Your task to perform on an android device: Add "apple airpods pro" to the cart on amazon.com, then select checkout. Image 0: 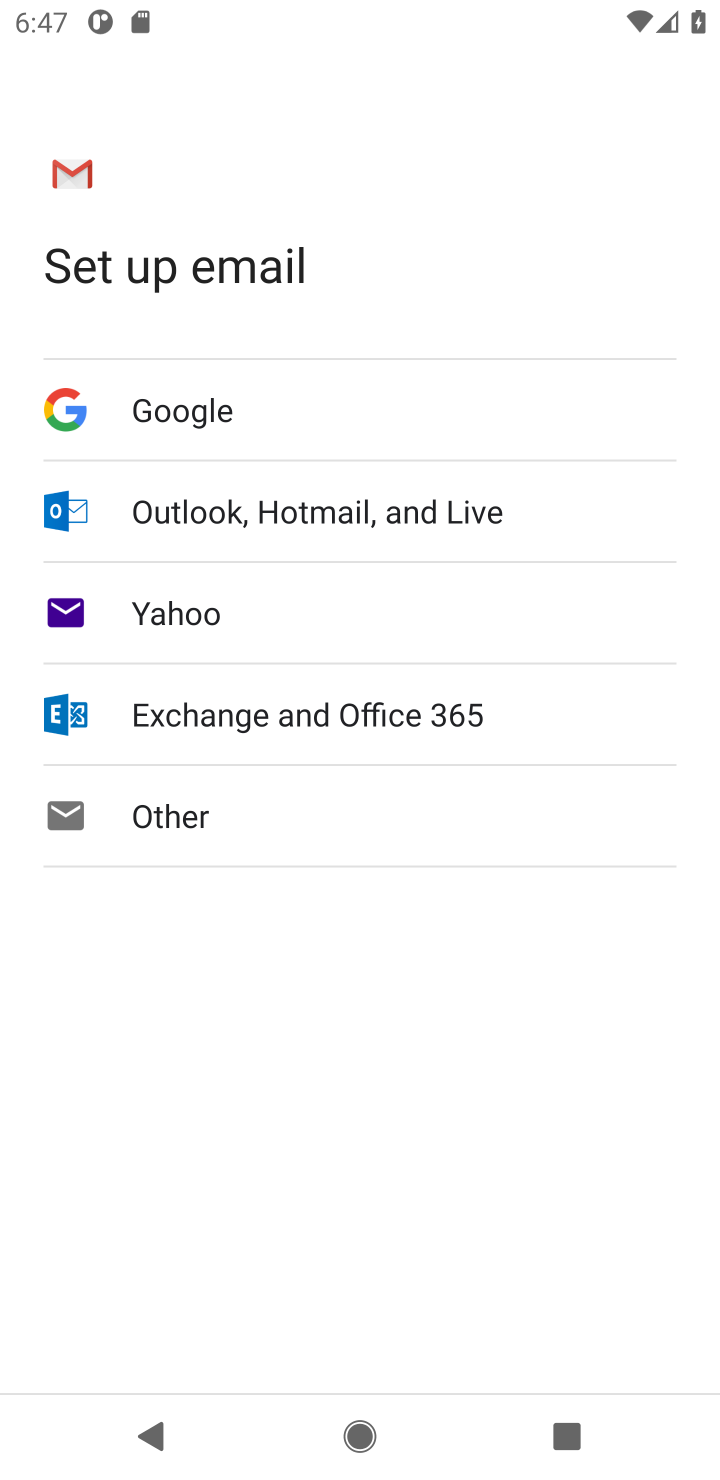
Step 0: press home button
Your task to perform on an android device: Add "apple airpods pro" to the cart on amazon.com, then select checkout. Image 1: 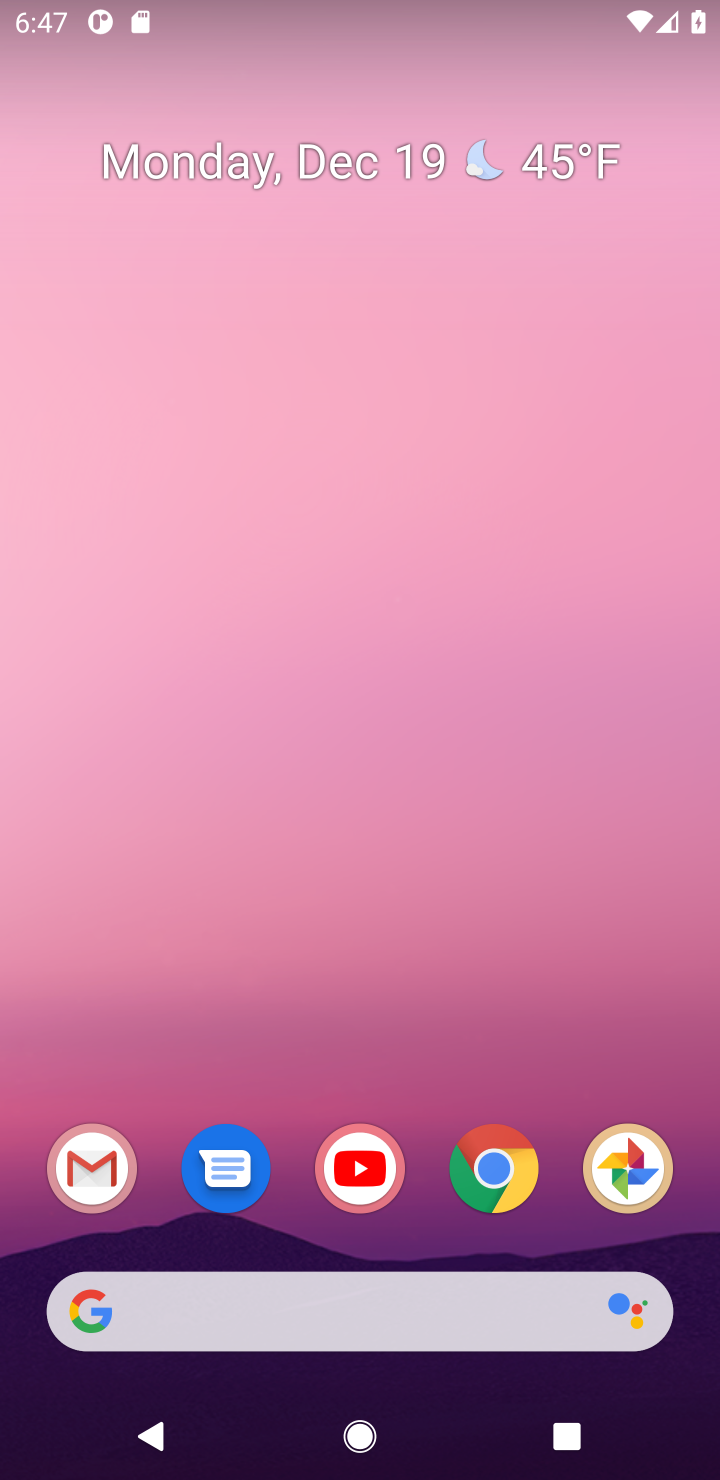
Step 1: click (496, 1183)
Your task to perform on an android device: Add "apple airpods pro" to the cart on amazon.com, then select checkout. Image 2: 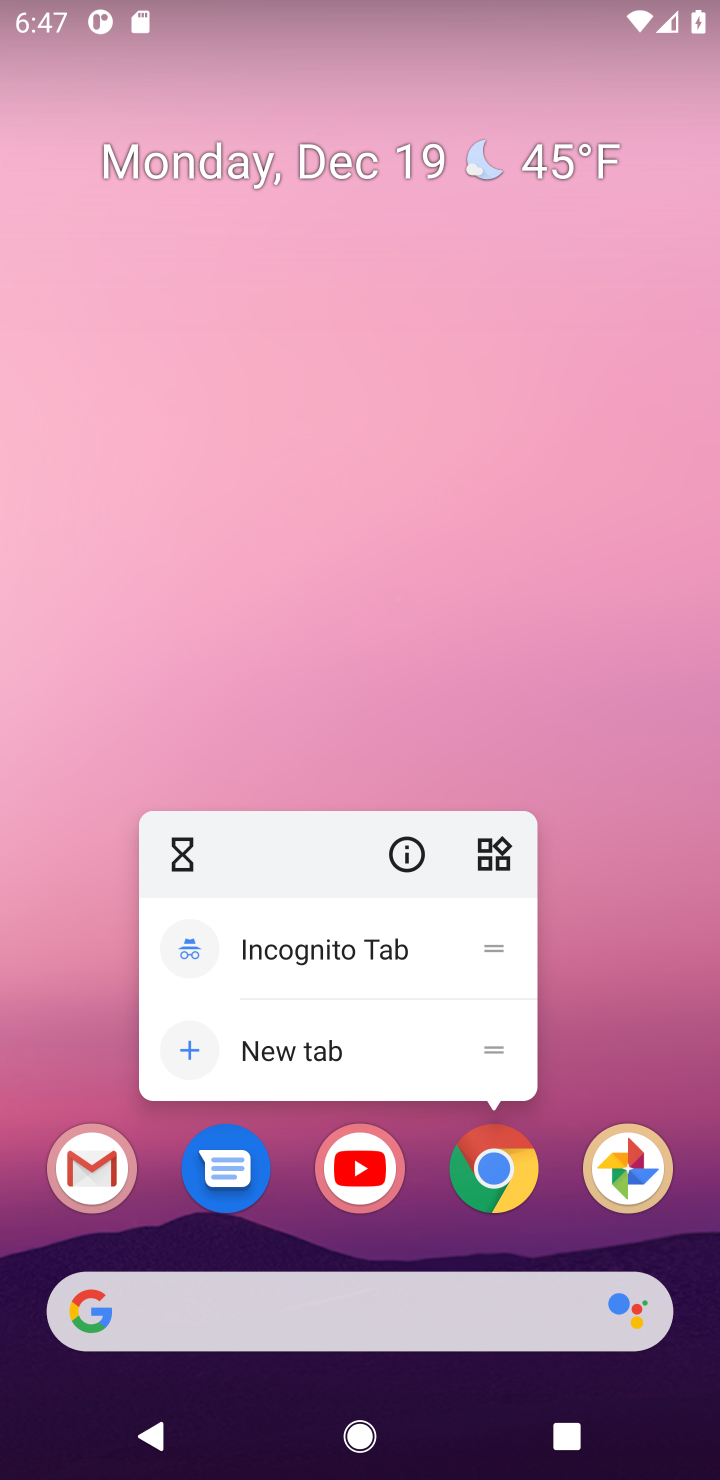
Step 2: click (496, 1183)
Your task to perform on an android device: Add "apple airpods pro" to the cart on amazon.com, then select checkout. Image 3: 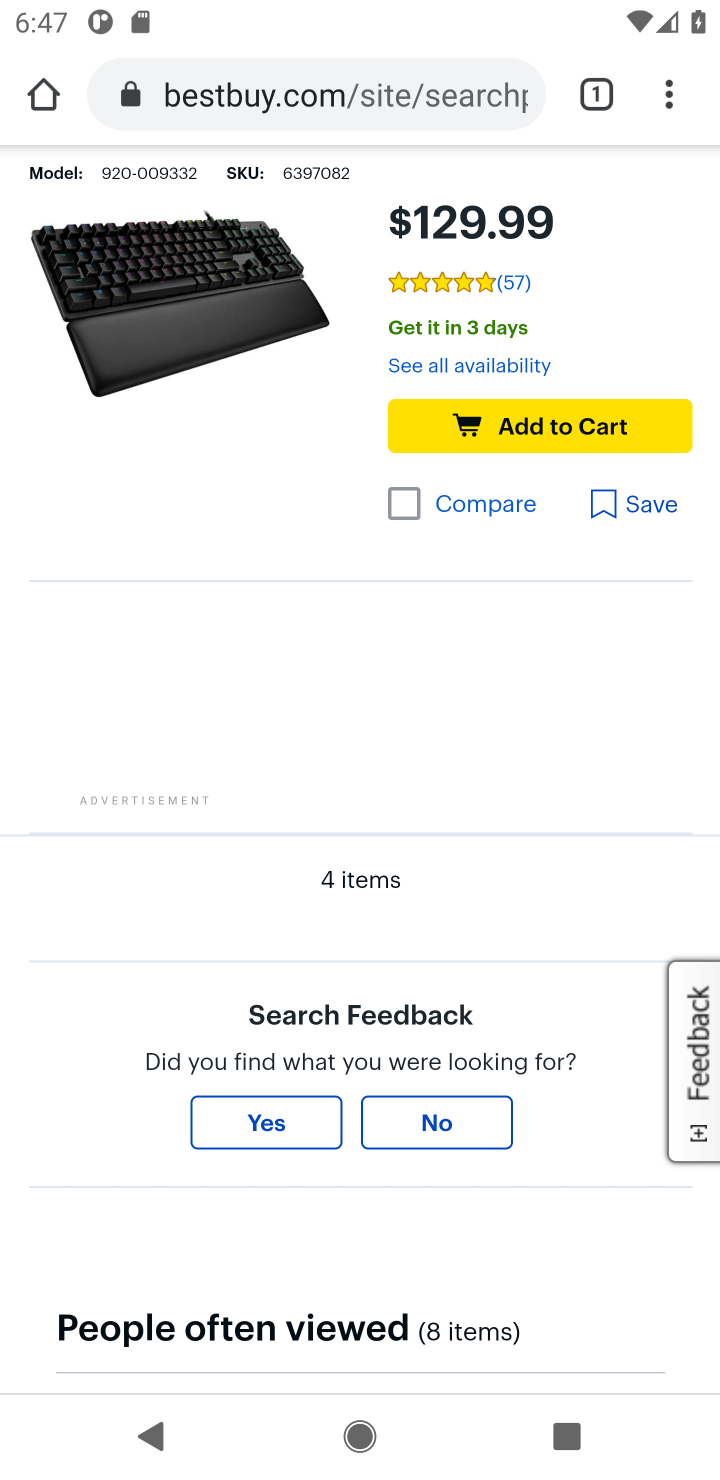
Step 3: click (288, 107)
Your task to perform on an android device: Add "apple airpods pro" to the cart on amazon.com, then select checkout. Image 4: 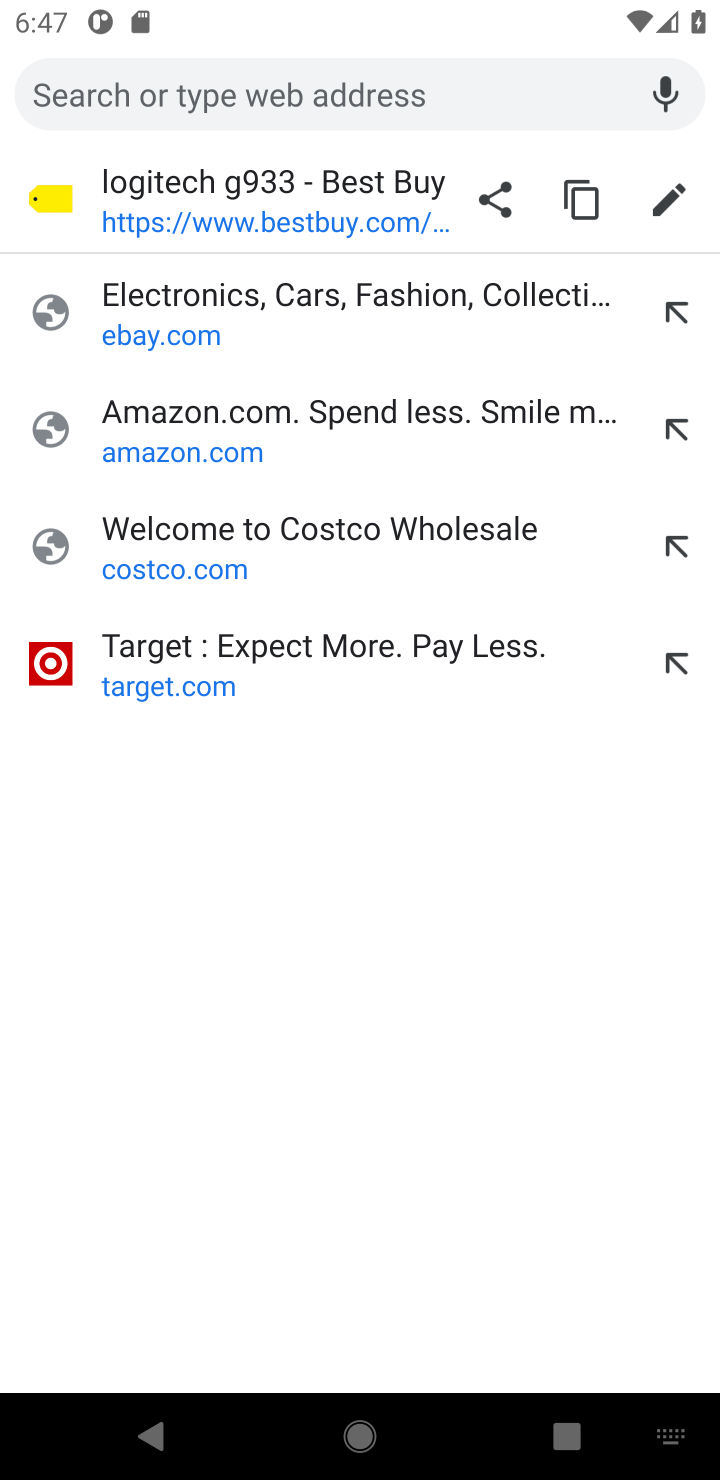
Step 4: click (201, 472)
Your task to perform on an android device: Add "apple airpods pro" to the cart on amazon.com, then select checkout. Image 5: 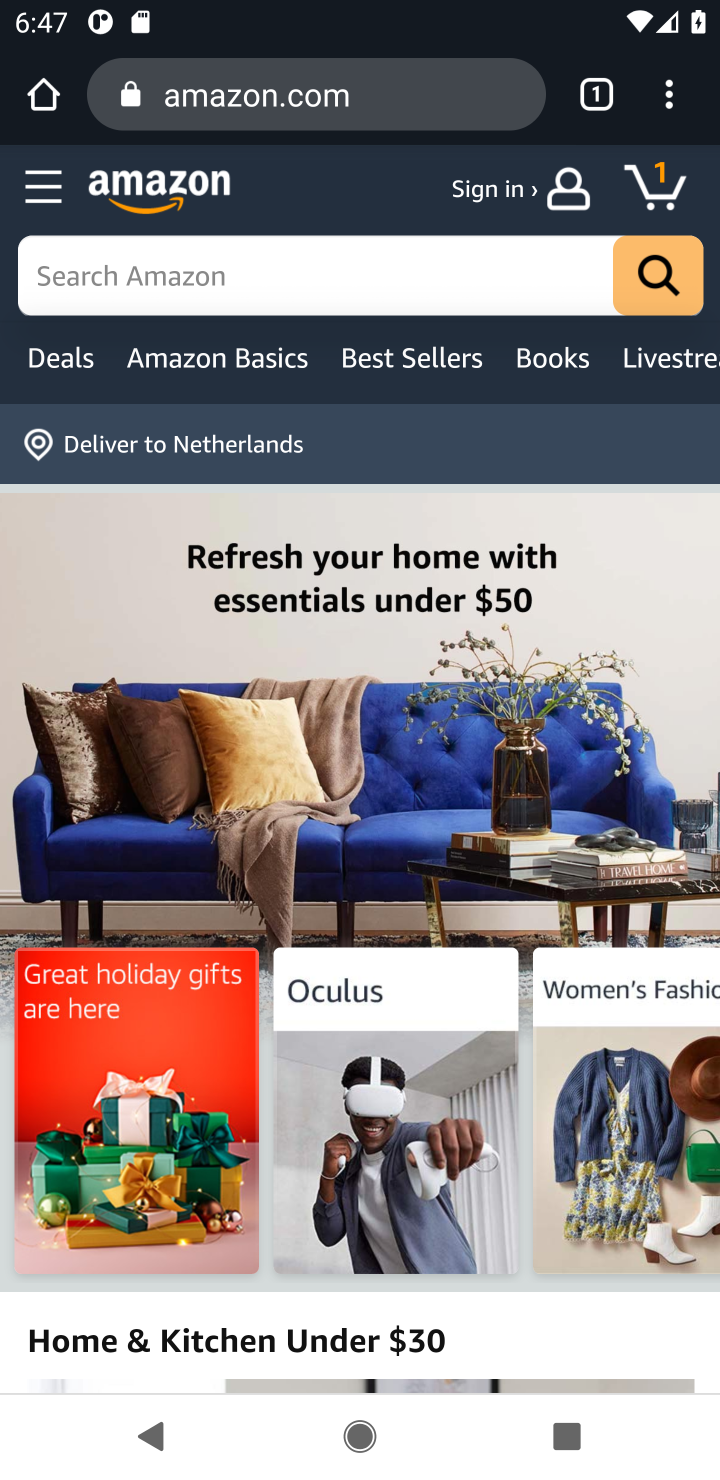
Step 5: click (169, 296)
Your task to perform on an android device: Add "apple airpods pro" to the cart on amazon.com, then select checkout. Image 6: 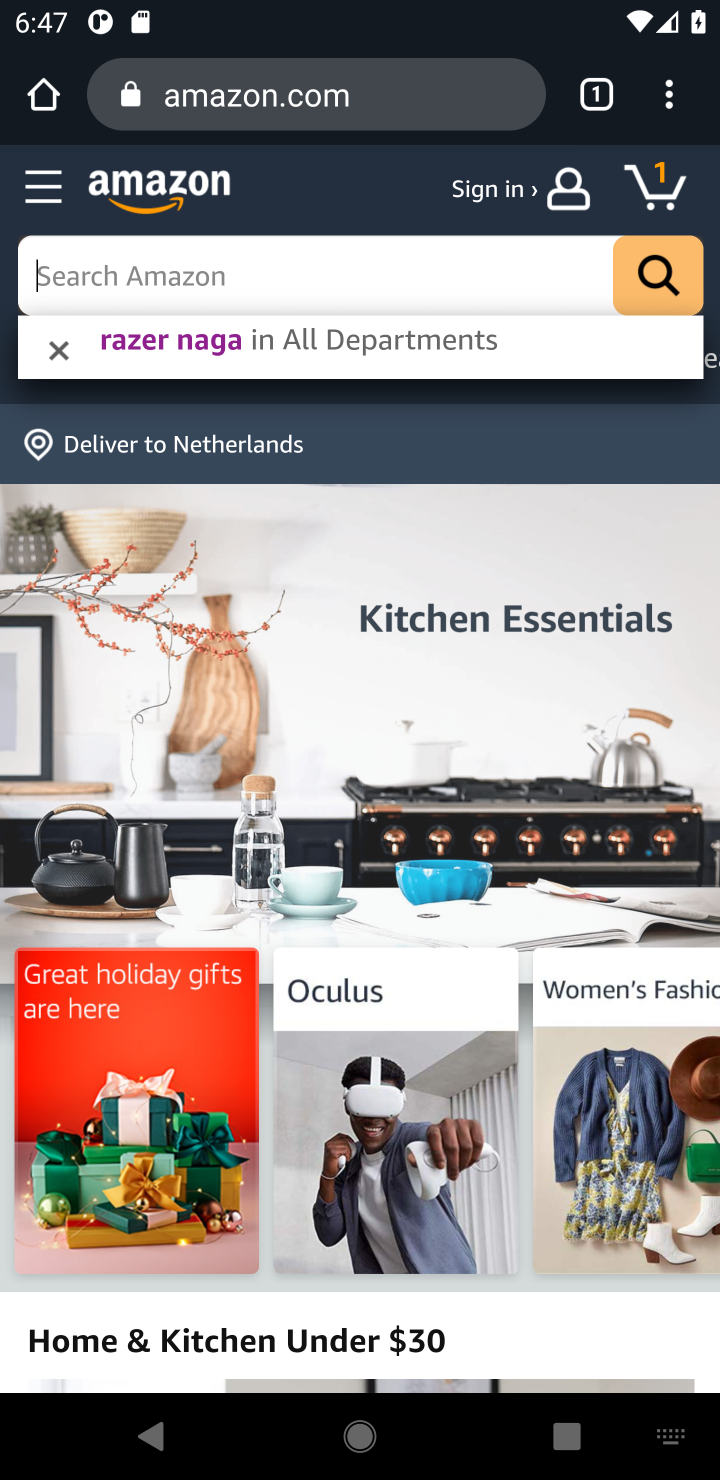
Step 6: type "apple airpods pro"
Your task to perform on an android device: Add "apple airpods pro" to the cart on amazon.com, then select checkout. Image 7: 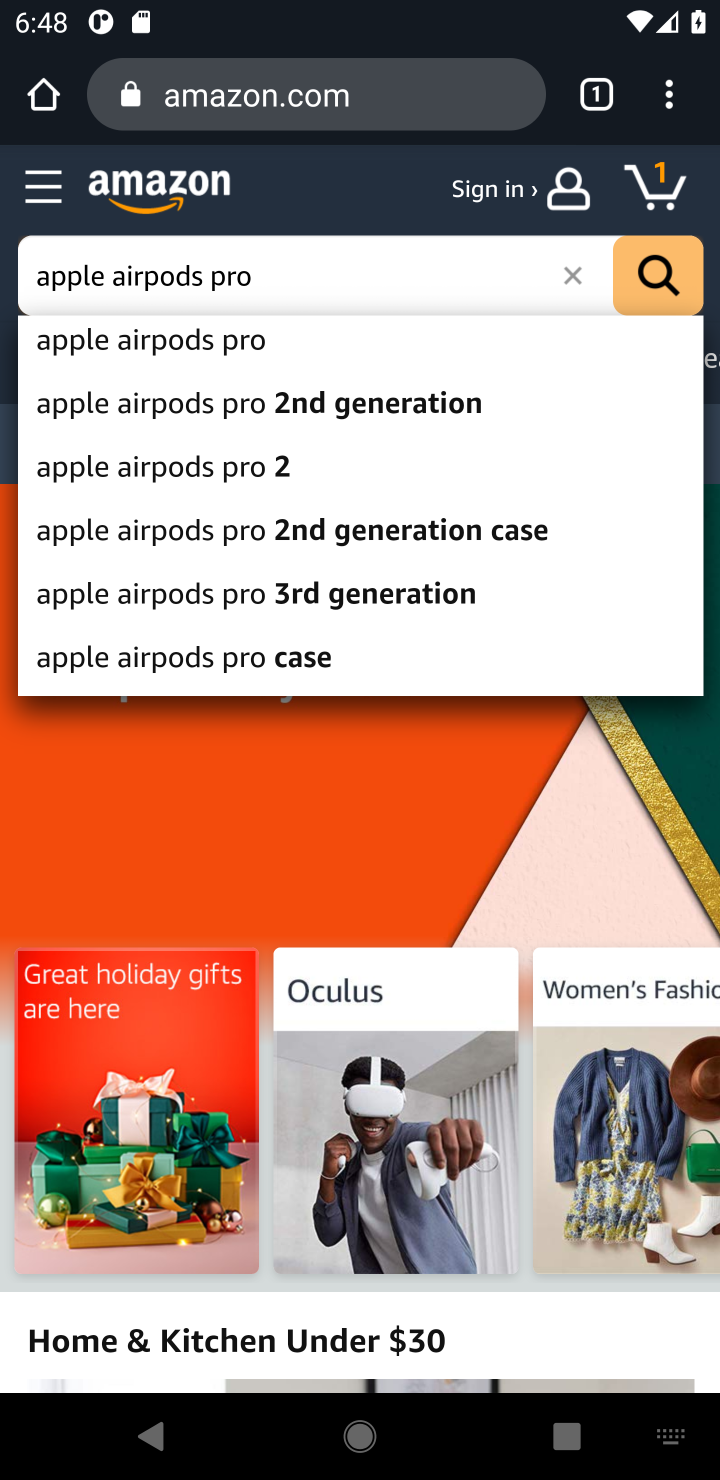
Step 7: click (89, 344)
Your task to perform on an android device: Add "apple airpods pro" to the cart on amazon.com, then select checkout. Image 8: 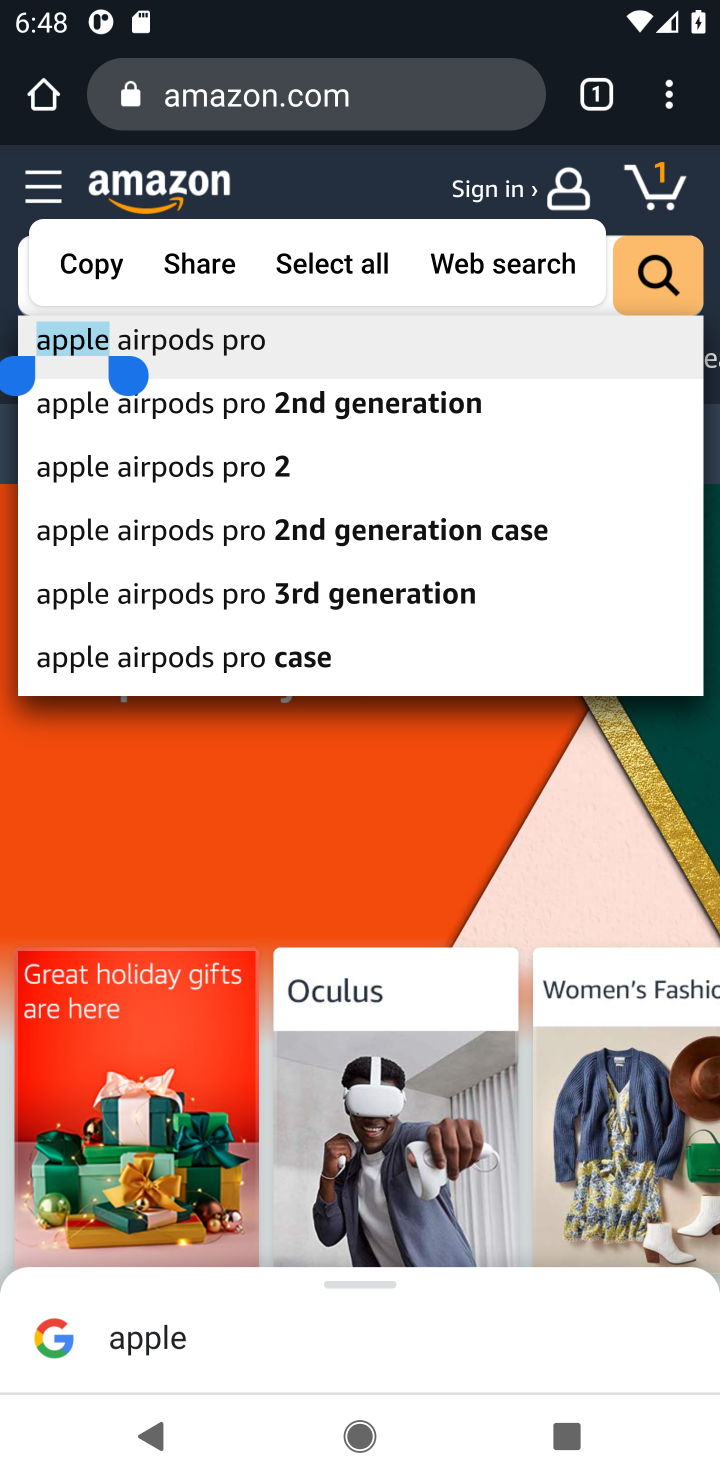
Step 8: click (231, 351)
Your task to perform on an android device: Add "apple airpods pro" to the cart on amazon.com, then select checkout. Image 9: 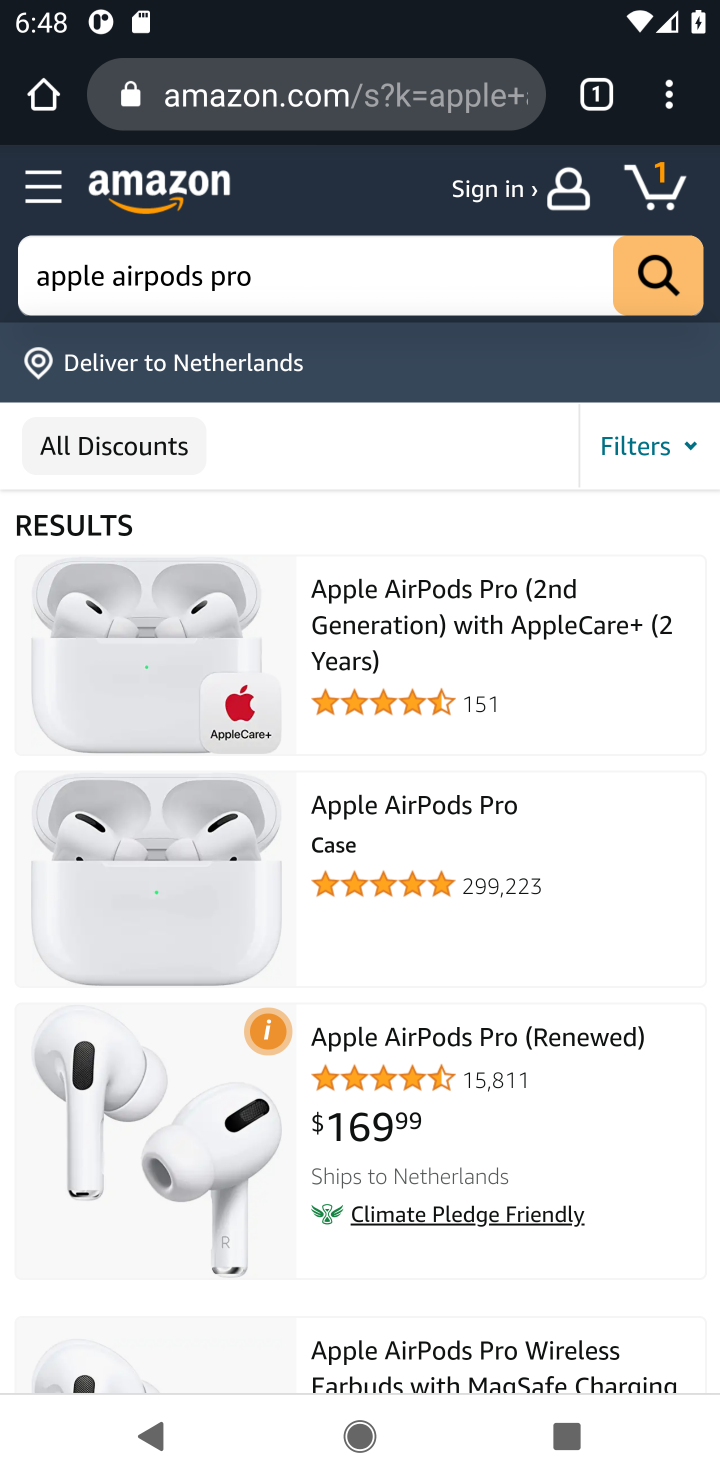
Step 9: drag from (261, 965) to (256, 526)
Your task to perform on an android device: Add "apple airpods pro" to the cart on amazon.com, then select checkout. Image 10: 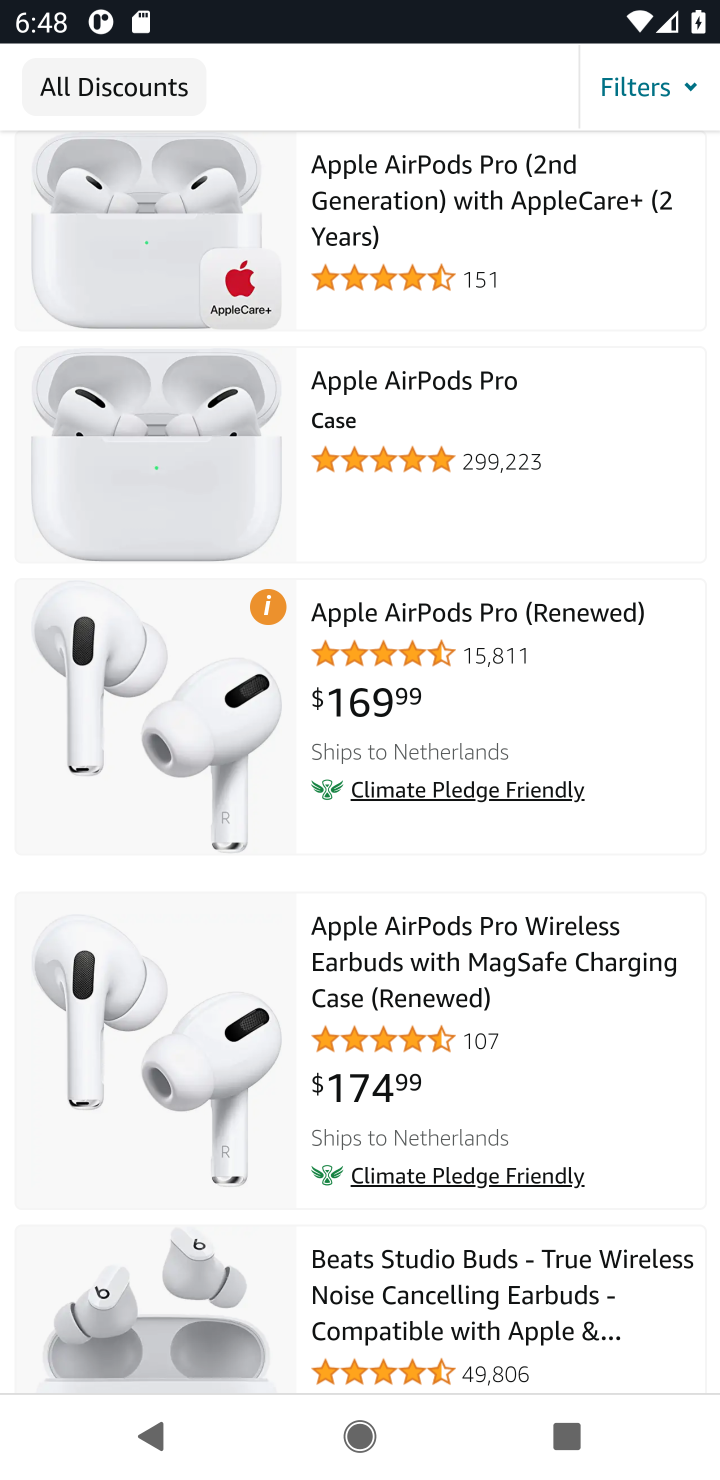
Step 10: click (439, 987)
Your task to perform on an android device: Add "apple airpods pro" to the cart on amazon.com, then select checkout. Image 11: 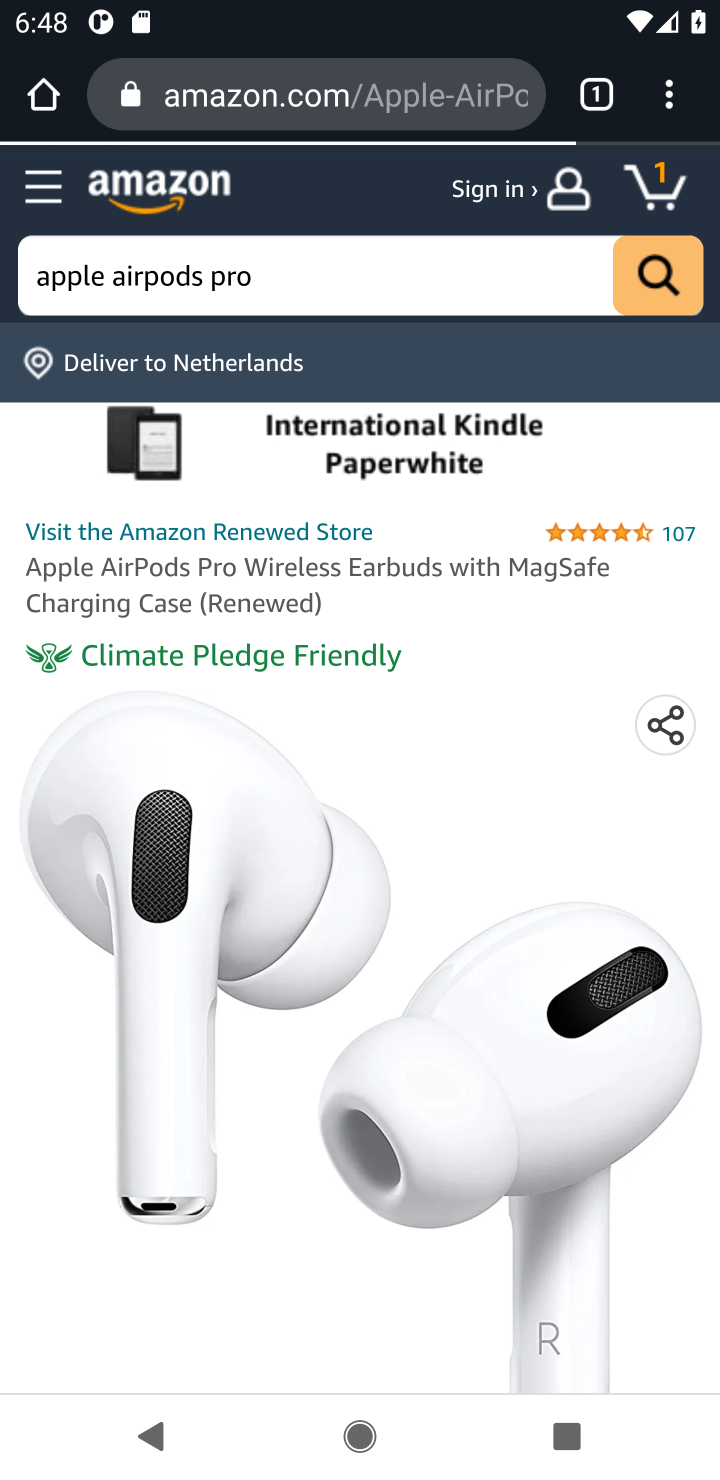
Step 11: drag from (338, 940) to (313, 401)
Your task to perform on an android device: Add "apple airpods pro" to the cart on amazon.com, then select checkout. Image 12: 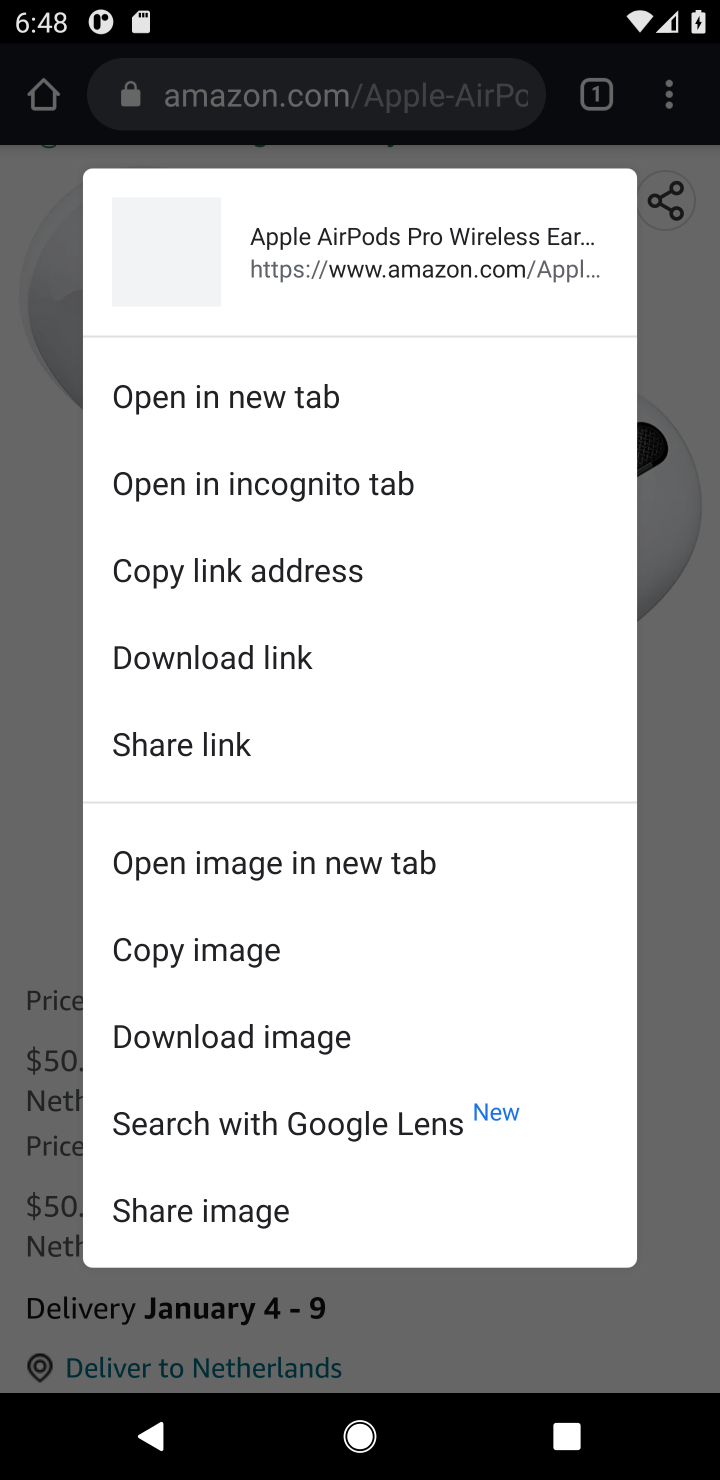
Step 12: drag from (339, 1048) to (349, 594)
Your task to perform on an android device: Add "apple airpods pro" to the cart on amazon.com, then select checkout. Image 13: 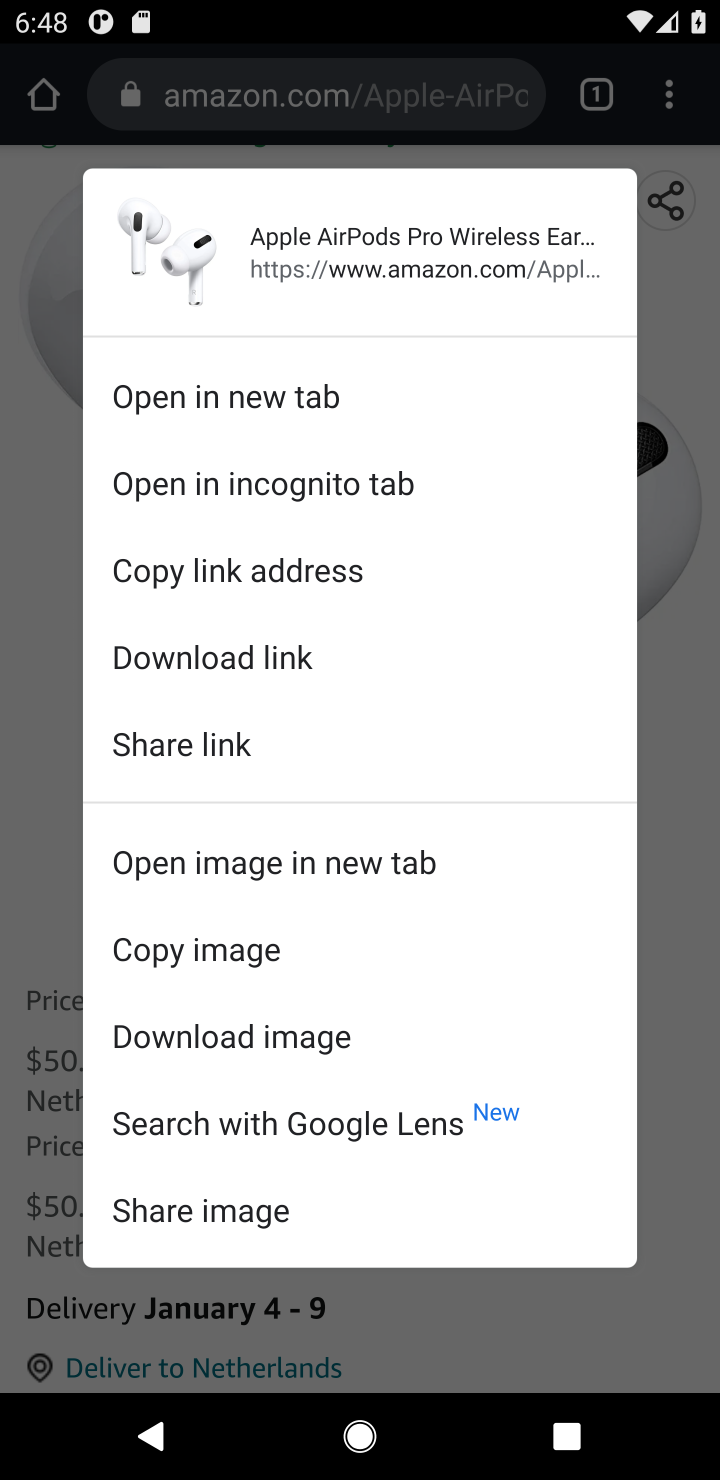
Step 13: click (673, 783)
Your task to perform on an android device: Add "apple airpods pro" to the cart on amazon.com, then select checkout. Image 14: 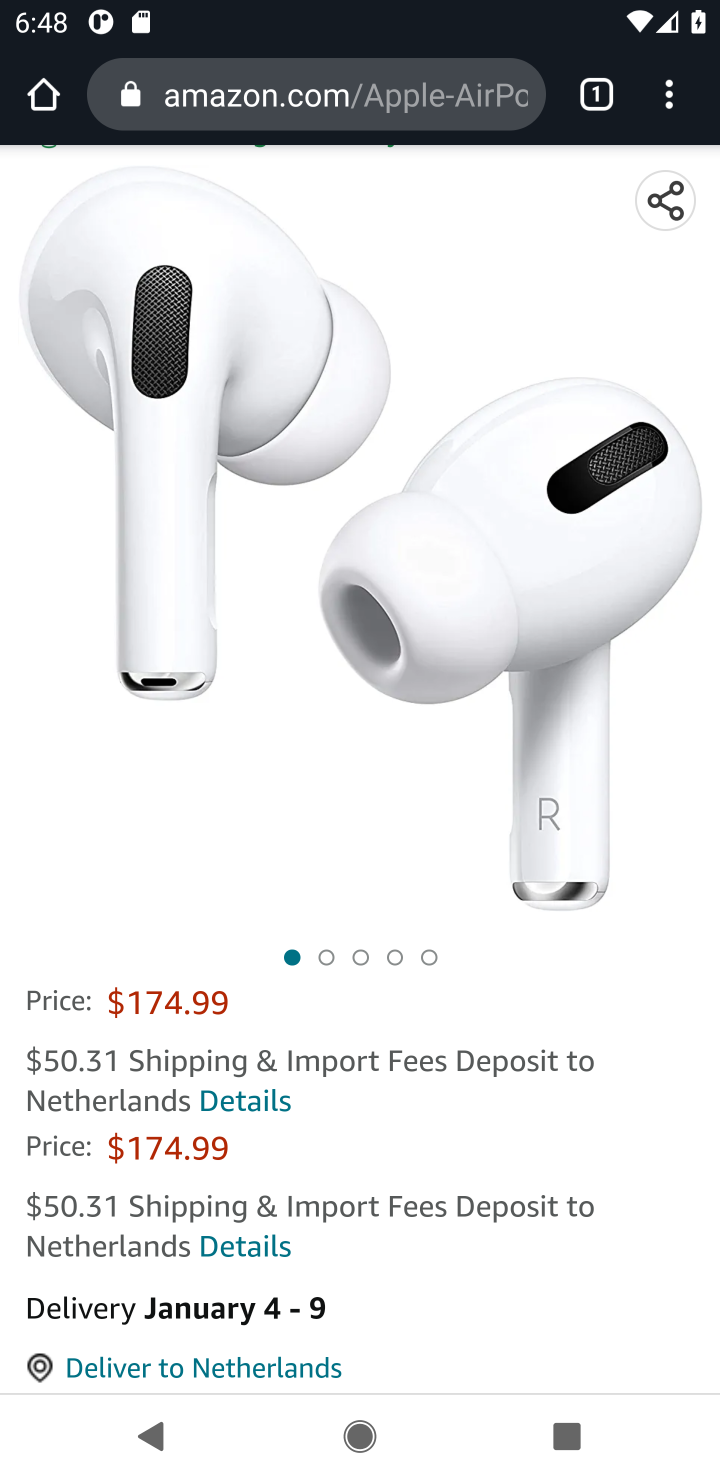
Step 14: drag from (375, 928) to (367, 403)
Your task to perform on an android device: Add "apple airpods pro" to the cart on amazon.com, then select checkout. Image 15: 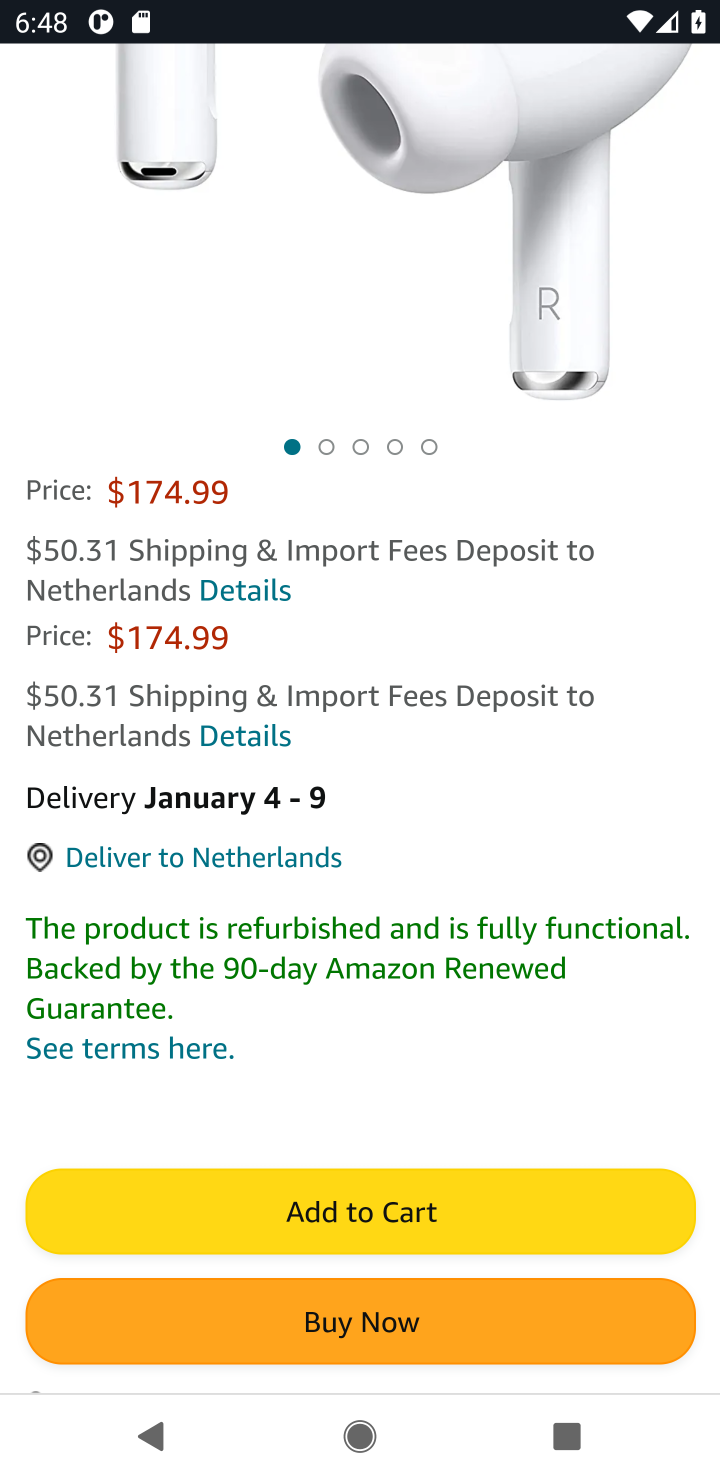
Step 15: click (320, 1203)
Your task to perform on an android device: Add "apple airpods pro" to the cart on amazon.com, then select checkout. Image 16: 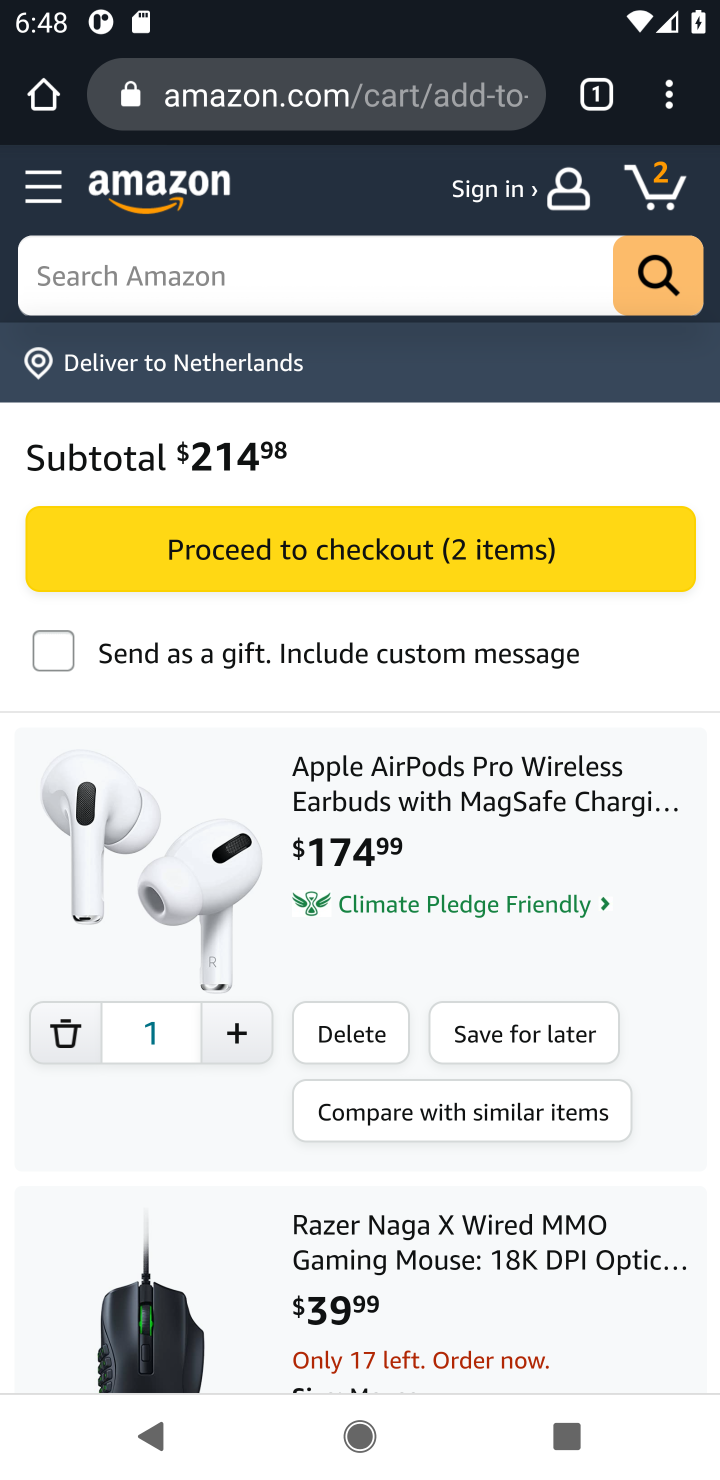
Step 16: click (307, 548)
Your task to perform on an android device: Add "apple airpods pro" to the cart on amazon.com, then select checkout. Image 17: 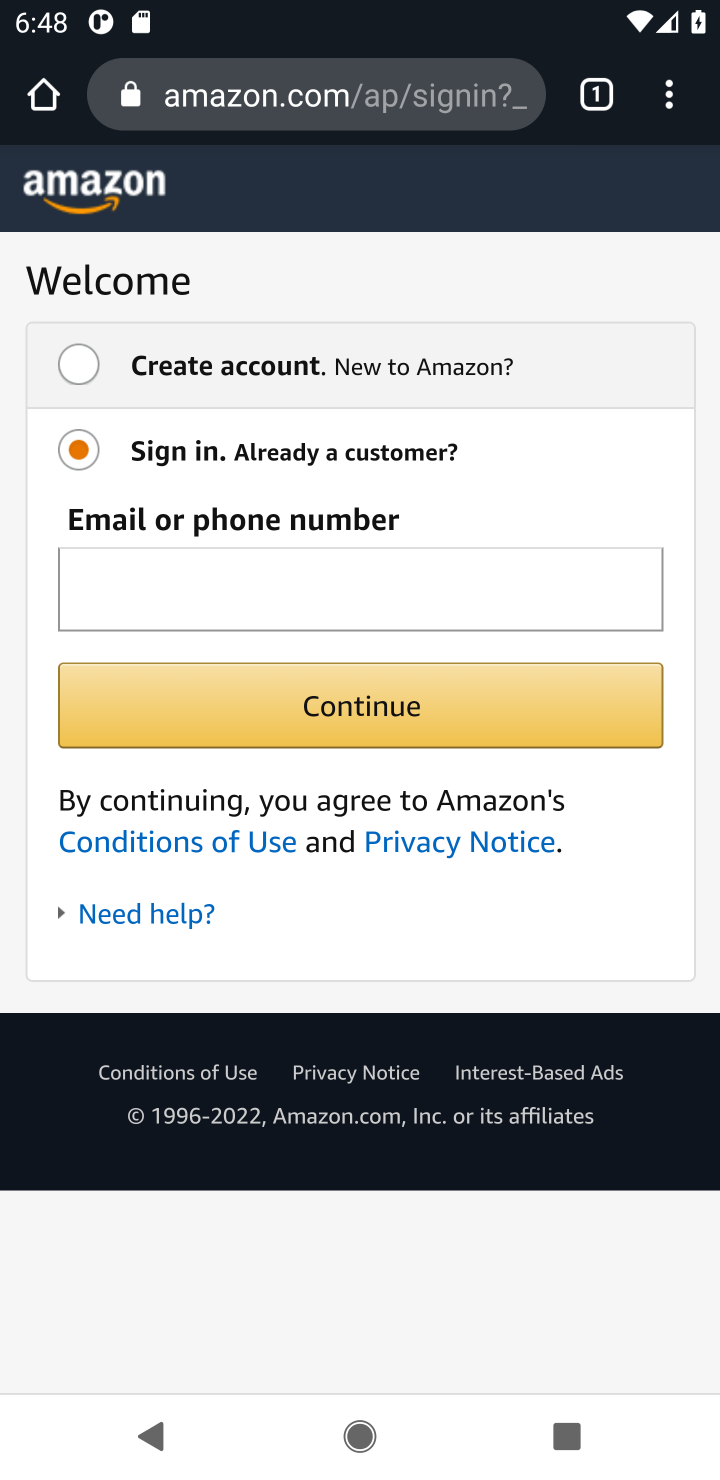
Step 17: task complete